Your task to perform on an android device: Open battery settings Image 0: 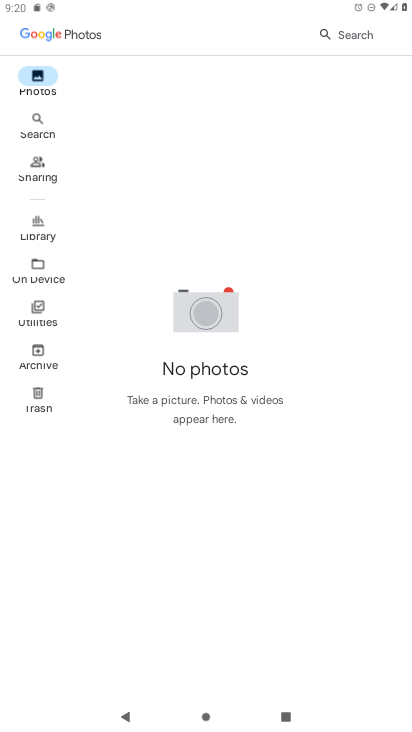
Step 0: press home button
Your task to perform on an android device: Open battery settings Image 1: 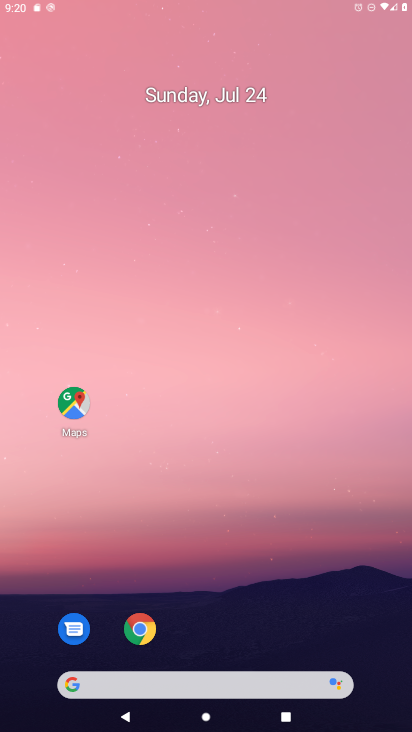
Step 1: drag from (377, 676) to (221, 39)
Your task to perform on an android device: Open battery settings Image 2: 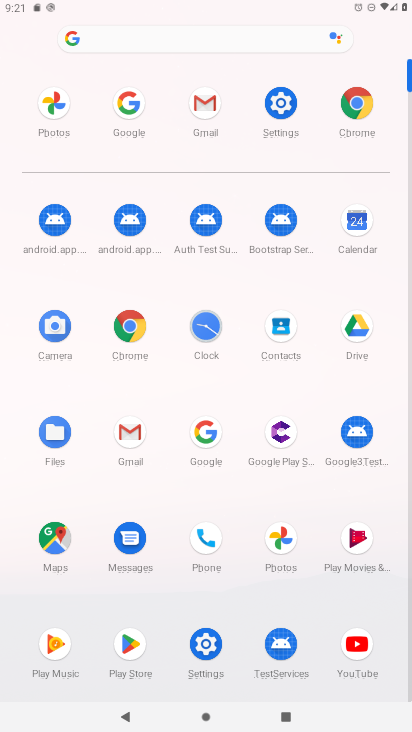
Step 2: click (205, 635)
Your task to perform on an android device: Open battery settings Image 3: 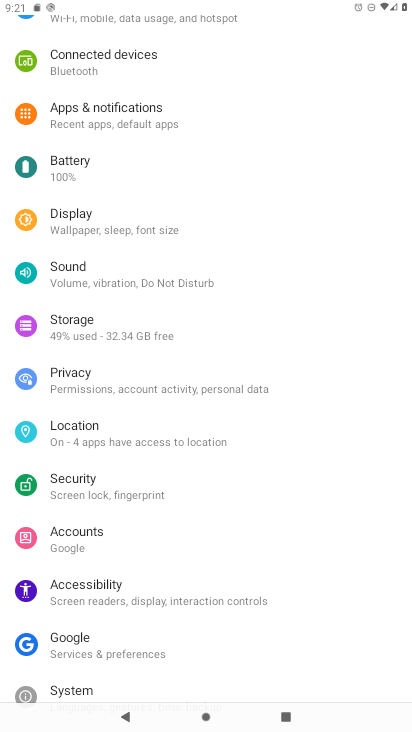
Step 3: click (63, 161)
Your task to perform on an android device: Open battery settings Image 4: 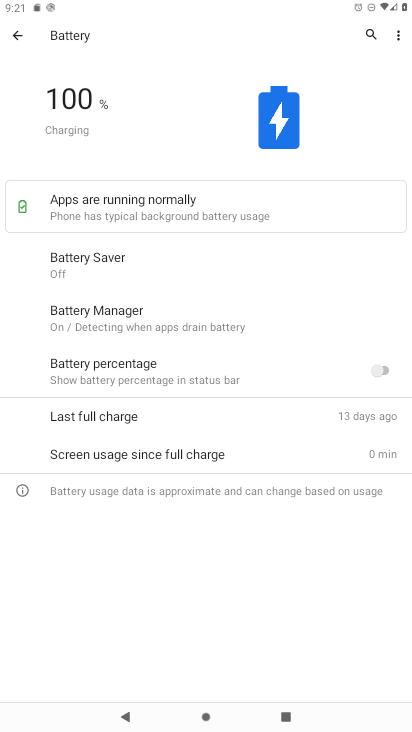
Step 4: task complete